Your task to perform on an android device: turn off smart reply in the gmail app Image 0: 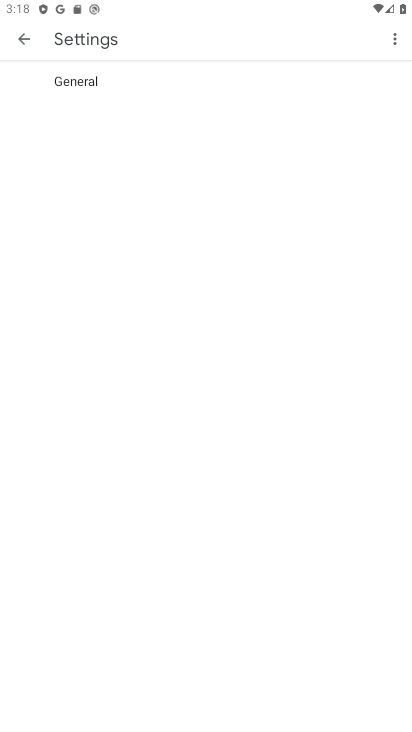
Step 0: press home button
Your task to perform on an android device: turn off smart reply in the gmail app Image 1: 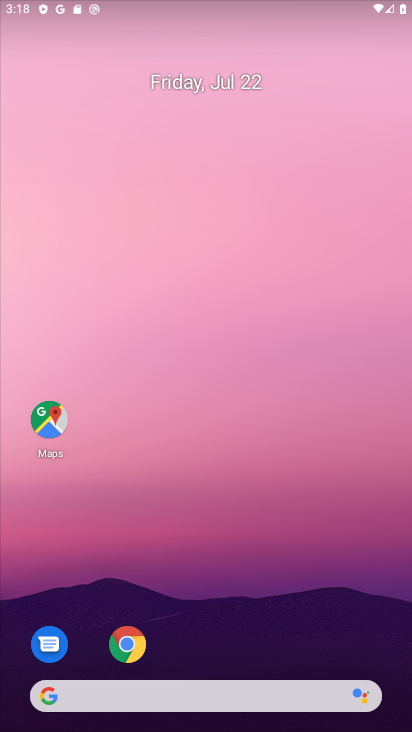
Step 1: drag from (244, 729) to (245, 240)
Your task to perform on an android device: turn off smart reply in the gmail app Image 2: 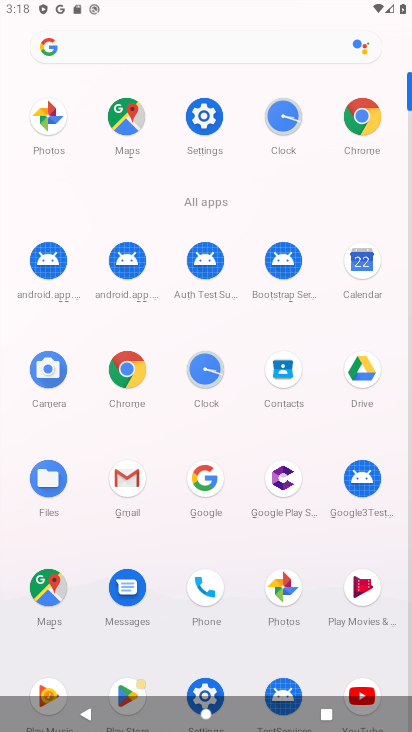
Step 2: click (129, 473)
Your task to perform on an android device: turn off smart reply in the gmail app Image 3: 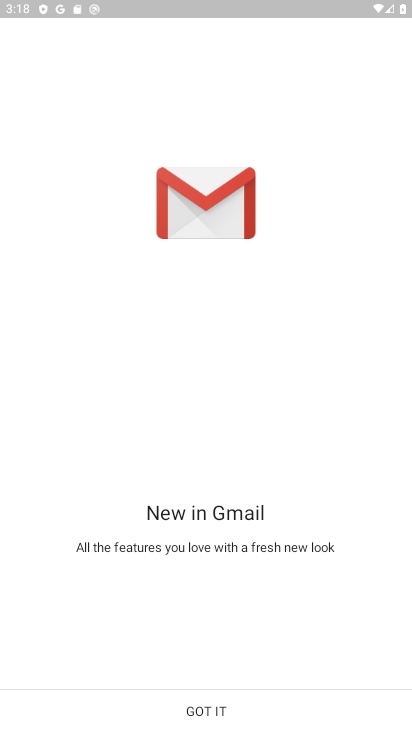
Step 3: click (223, 702)
Your task to perform on an android device: turn off smart reply in the gmail app Image 4: 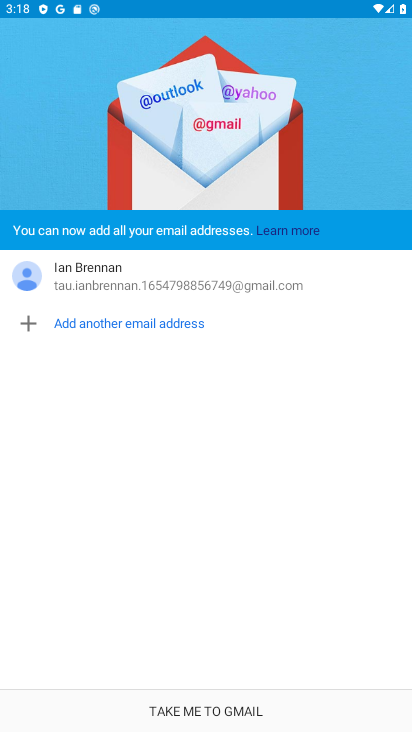
Step 4: click (208, 704)
Your task to perform on an android device: turn off smart reply in the gmail app Image 5: 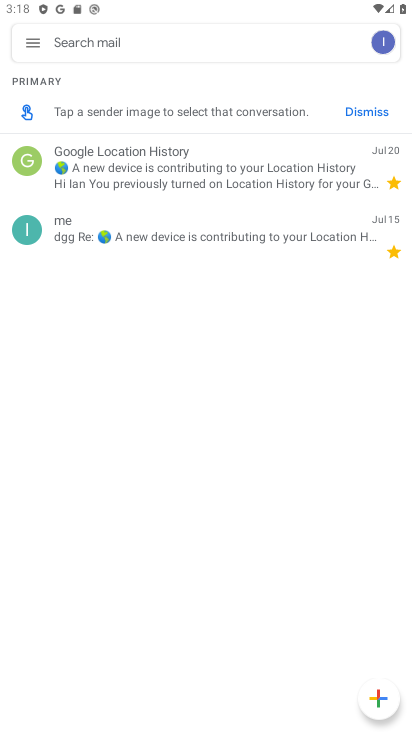
Step 5: click (30, 48)
Your task to perform on an android device: turn off smart reply in the gmail app Image 6: 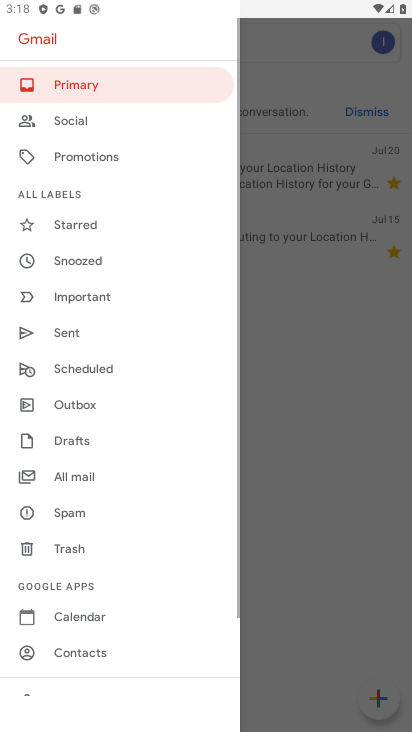
Step 6: drag from (79, 556) to (73, 315)
Your task to perform on an android device: turn off smart reply in the gmail app Image 7: 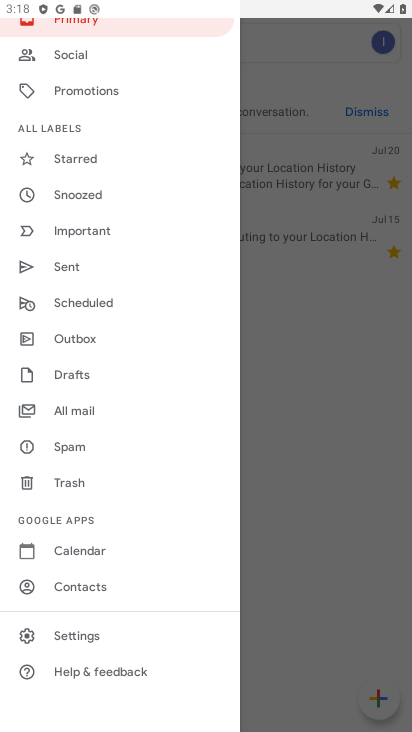
Step 7: click (79, 632)
Your task to perform on an android device: turn off smart reply in the gmail app Image 8: 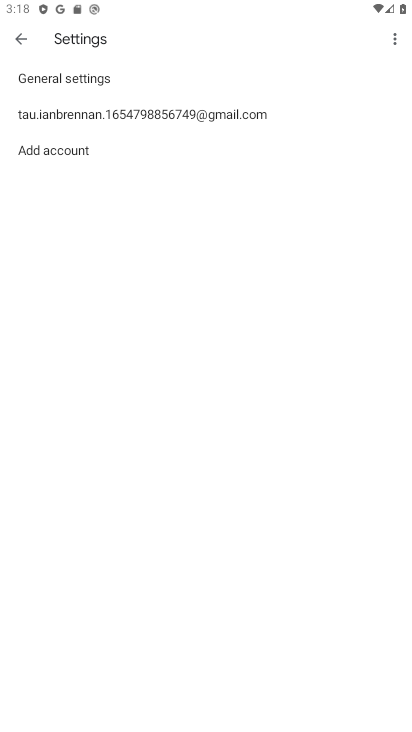
Step 8: click (151, 113)
Your task to perform on an android device: turn off smart reply in the gmail app Image 9: 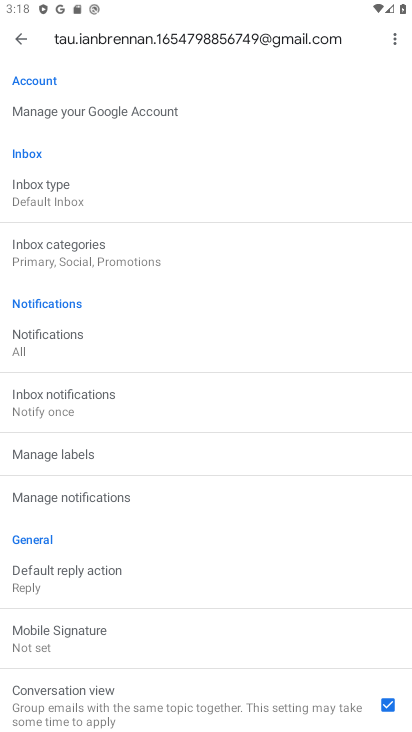
Step 9: drag from (137, 618) to (160, 294)
Your task to perform on an android device: turn off smart reply in the gmail app Image 10: 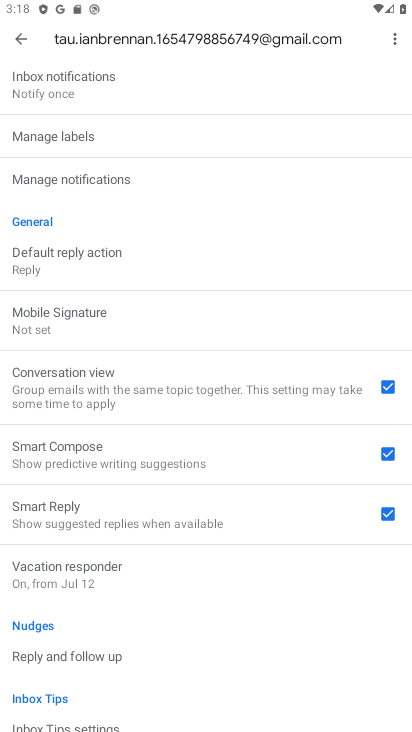
Step 10: click (385, 518)
Your task to perform on an android device: turn off smart reply in the gmail app Image 11: 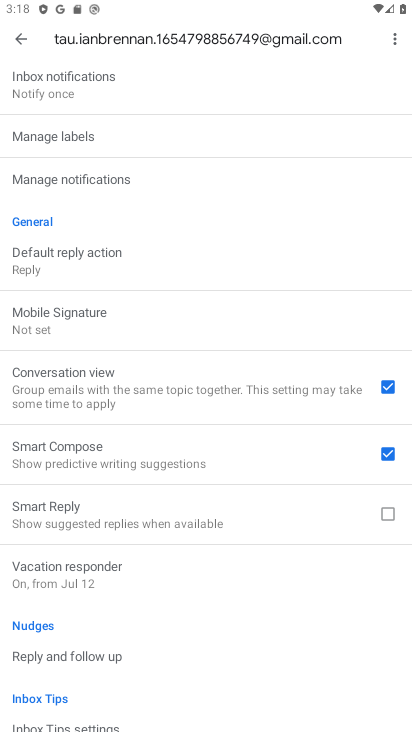
Step 11: task complete